Your task to perform on an android device: Open Google Chrome and click the shortcut for Amazon.com Image 0: 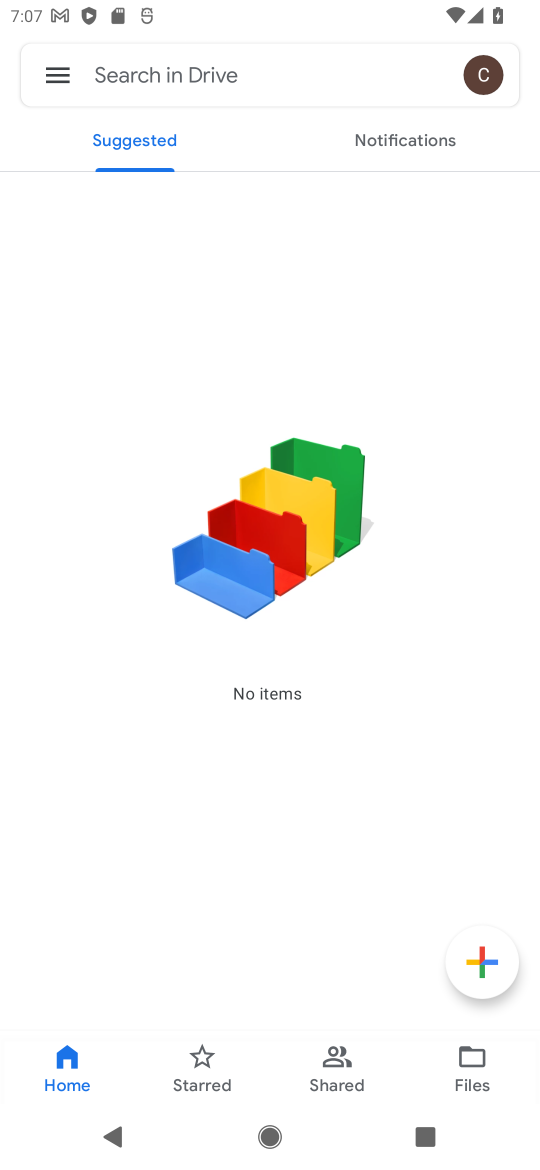
Step 0: press home button
Your task to perform on an android device: Open Google Chrome and click the shortcut for Amazon.com Image 1: 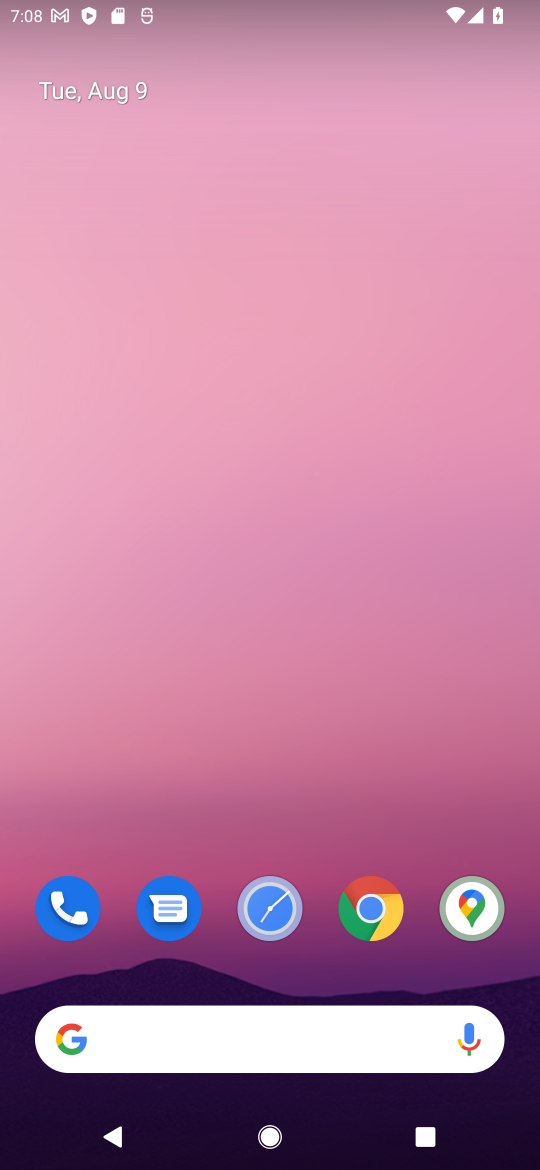
Step 1: click (368, 910)
Your task to perform on an android device: Open Google Chrome and click the shortcut for Amazon.com Image 2: 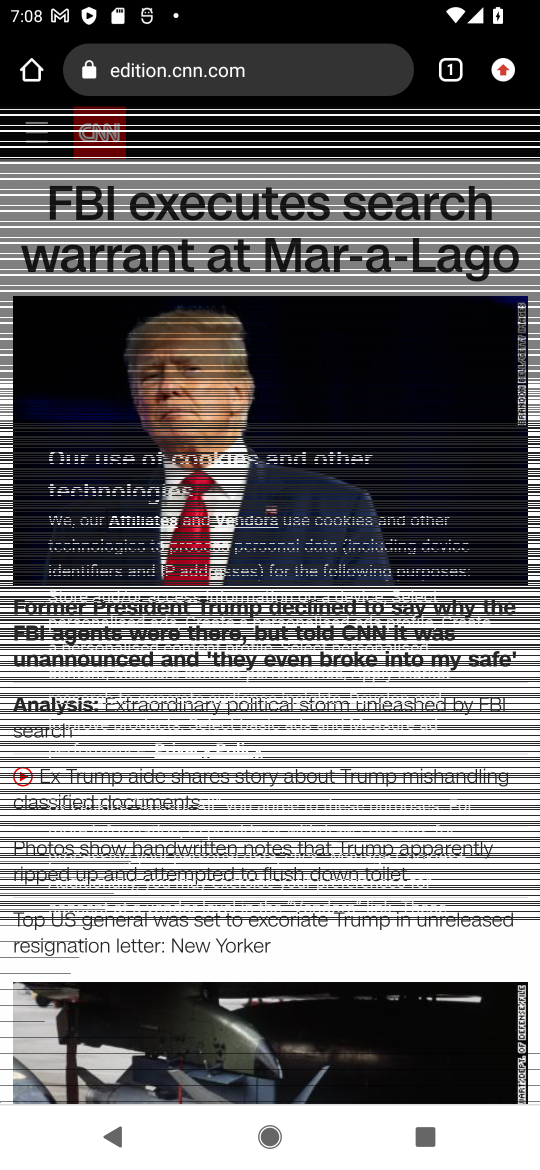
Step 2: click (499, 69)
Your task to perform on an android device: Open Google Chrome and click the shortcut for Amazon.com Image 3: 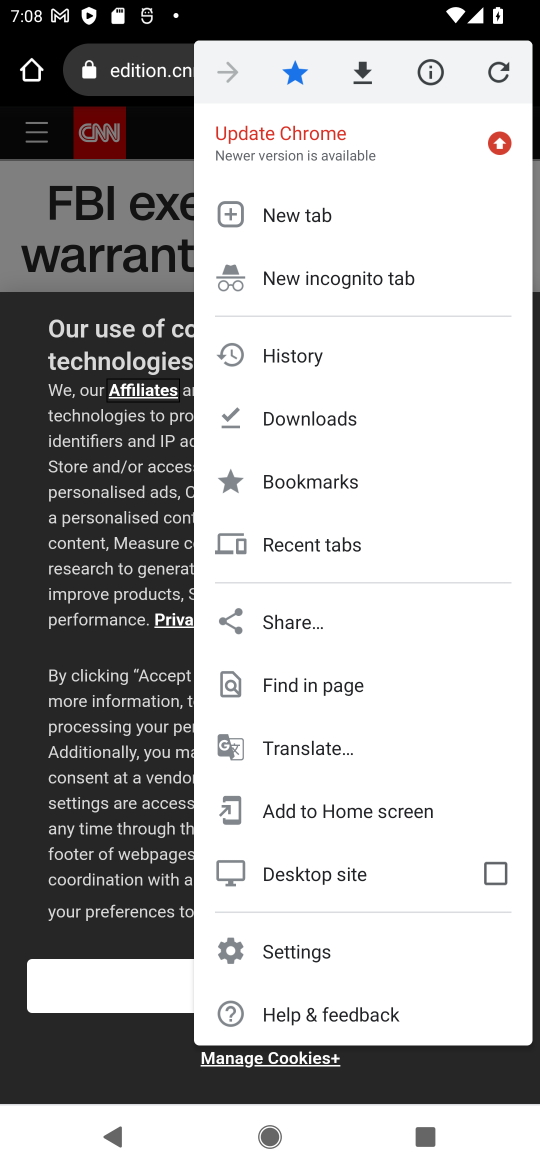
Step 3: click (300, 217)
Your task to perform on an android device: Open Google Chrome and click the shortcut for Amazon.com Image 4: 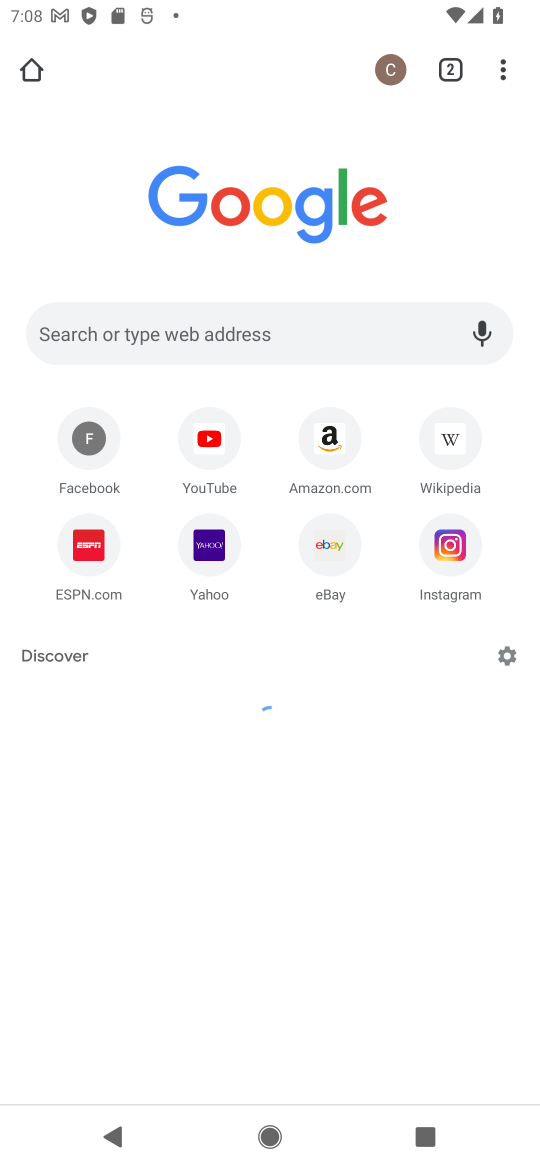
Step 4: click (330, 430)
Your task to perform on an android device: Open Google Chrome and click the shortcut for Amazon.com Image 5: 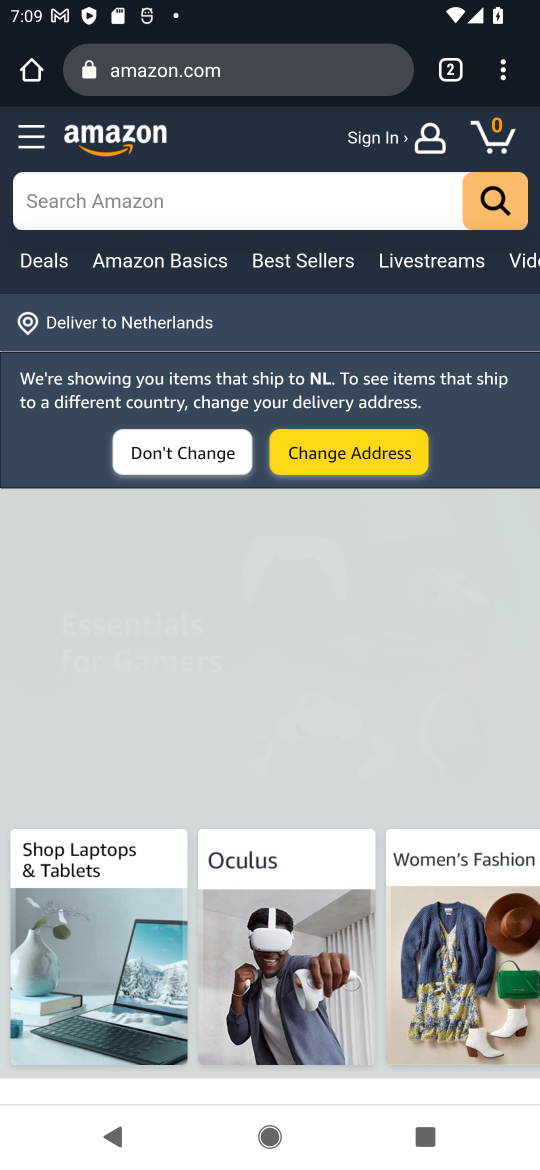
Step 5: task complete